Your task to perform on an android device: turn off picture-in-picture Image 0: 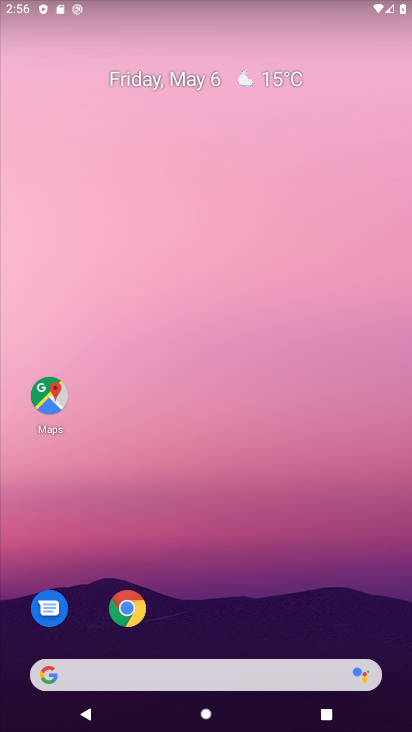
Step 0: drag from (252, 580) to (332, 149)
Your task to perform on an android device: turn off picture-in-picture Image 1: 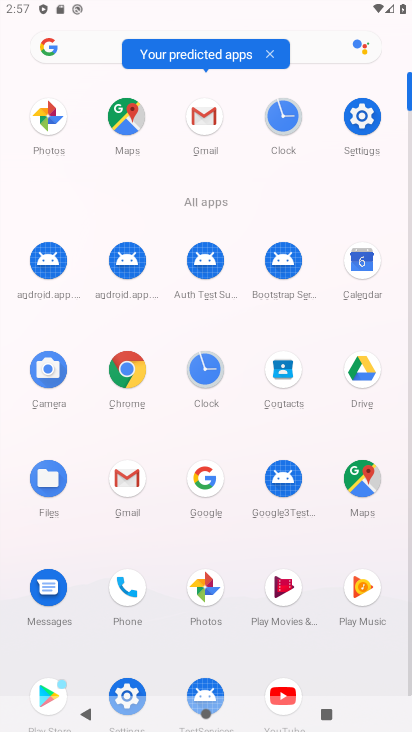
Step 1: click (138, 708)
Your task to perform on an android device: turn off picture-in-picture Image 2: 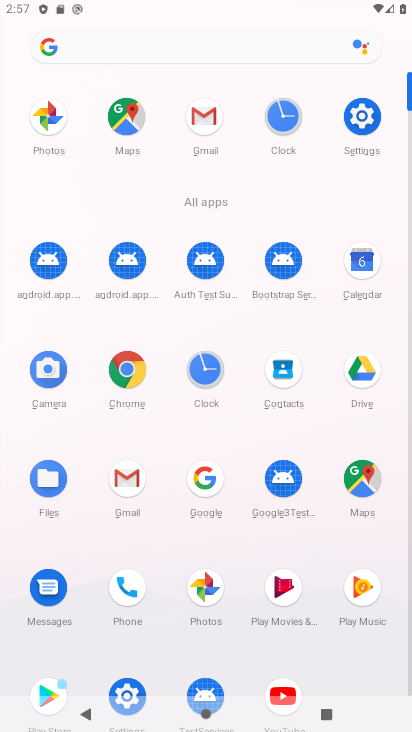
Step 2: click (126, 688)
Your task to perform on an android device: turn off picture-in-picture Image 3: 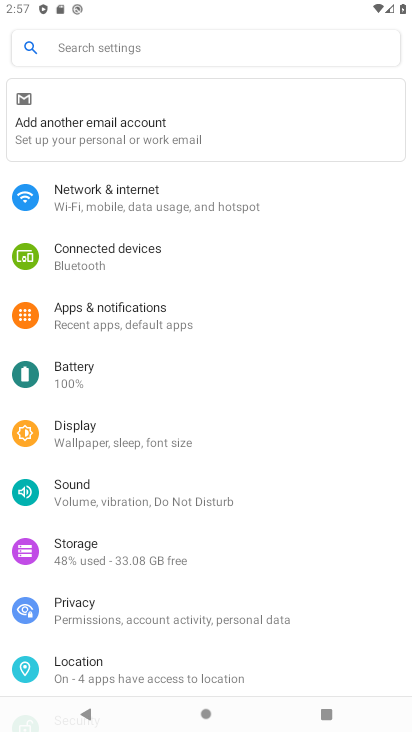
Step 3: click (172, 320)
Your task to perform on an android device: turn off picture-in-picture Image 4: 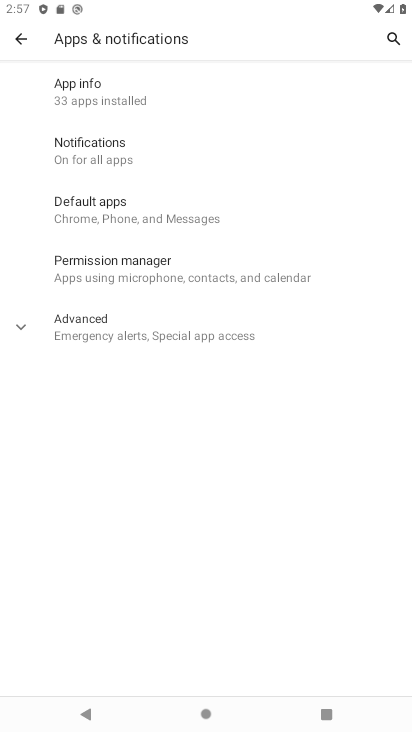
Step 4: click (156, 340)
Your task to perform on an android device: turn off picture-in-picture Image 5: 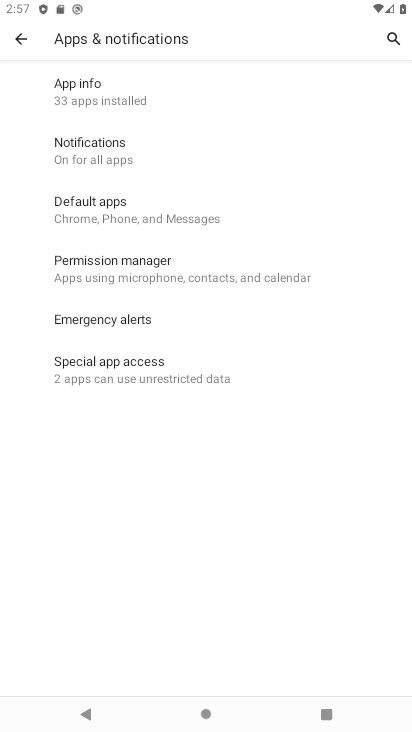
Step 5: click (142, 374)
Your task to perform on an android device: turn off picture-in-picture Image 6: 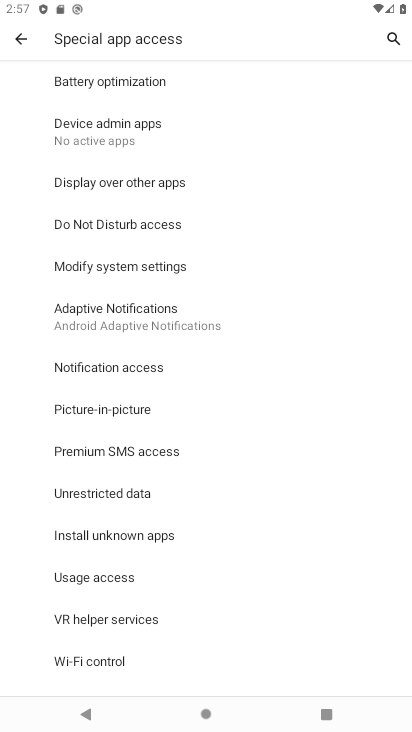
Step 6: click (155, 416)
Your task to perform on an android device: turn off picture-in-picture Image 7: 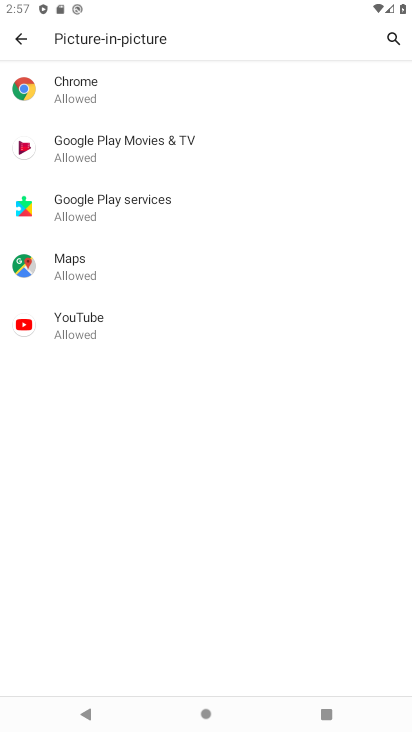
Step 7: click (267, 81)
Your task to perform on an android device: turn off picture-in-picture Image 8: 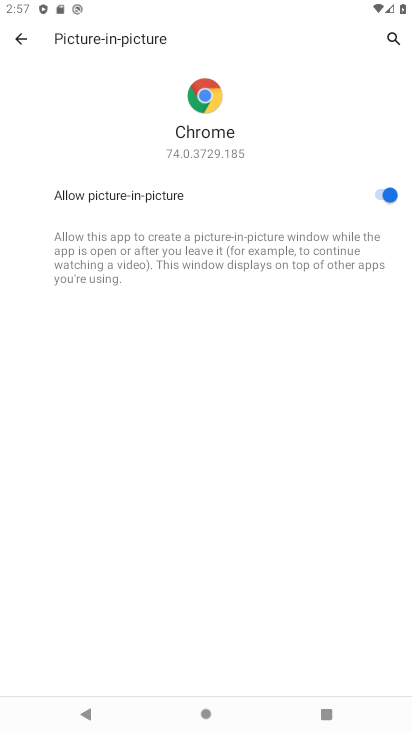
Step 8: click (381, 192)
Your task to perform on an android device: turn off picture-in-picture Image 9: 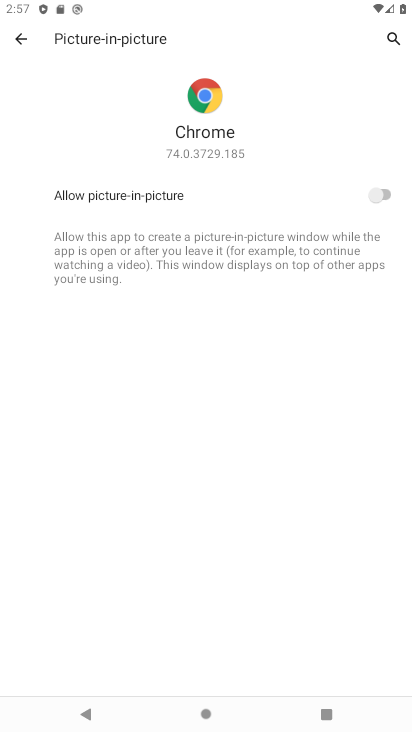
Step 9: press back button
Your task to perform on an android device: turn off picture-in-picture Image 10: 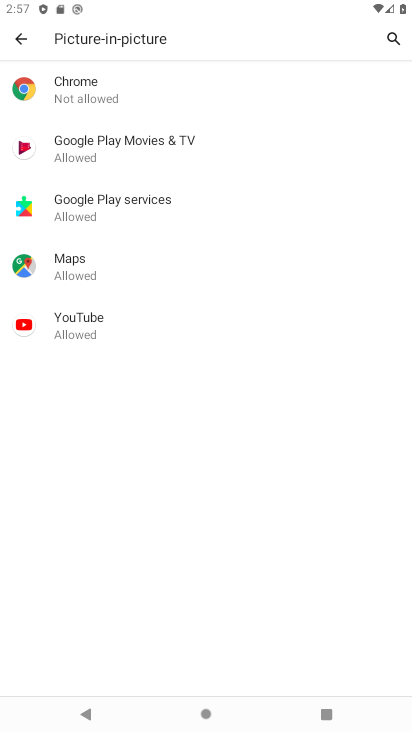
Step 10: click (190, 138)
Your task to perform on an android device: turn off picture-in-picture Image 11: 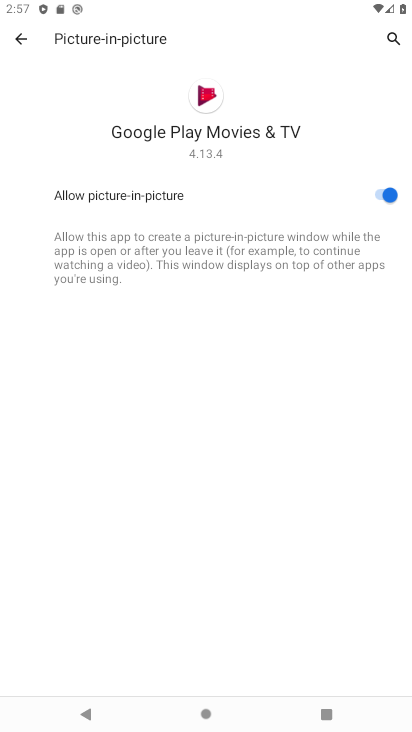
Step 11: click (379, 189)
Your task to perform on an android device: turn off picture-in-picture Image 12: 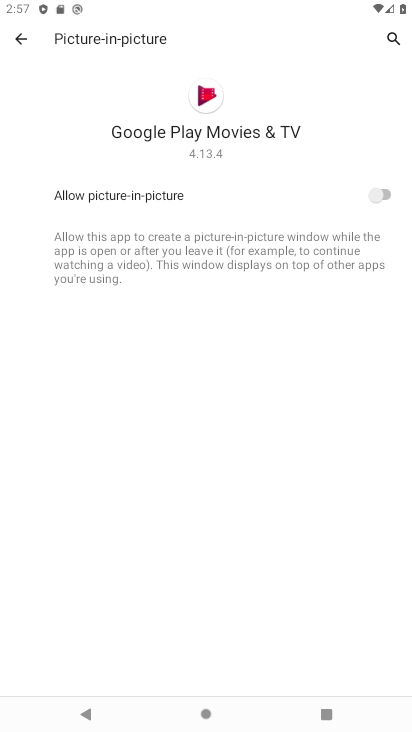
Step 12: press back button
Your task to perform on an android device: turn off picture-in-picture Image 13: 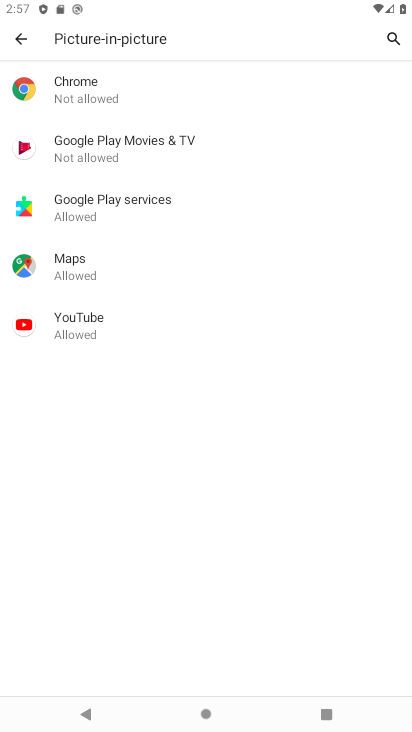
Step 13: click (194, 214)
Your task to perform on an android device: turn off picture-in-picture Image 14: 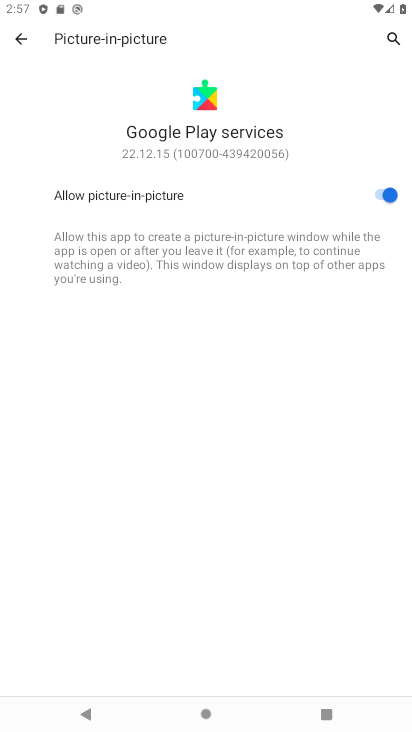
Step 14: click (387, 189)
Your task to perform on an android device: turn off picture-in-picture Image 15: 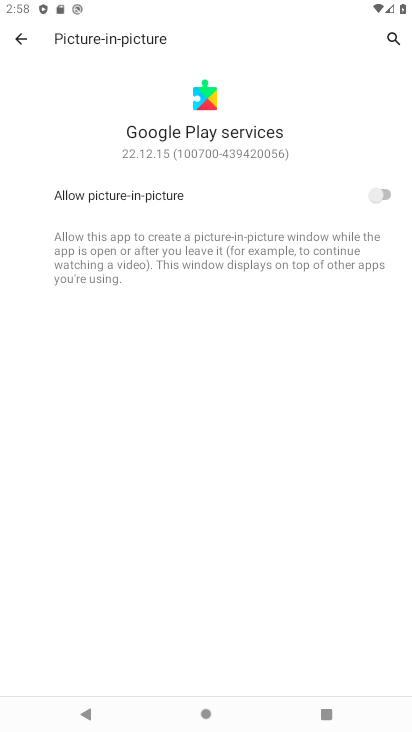
Step 15: press back button
Your task to perform on an android device: turn off picture-in-picture Image 16: 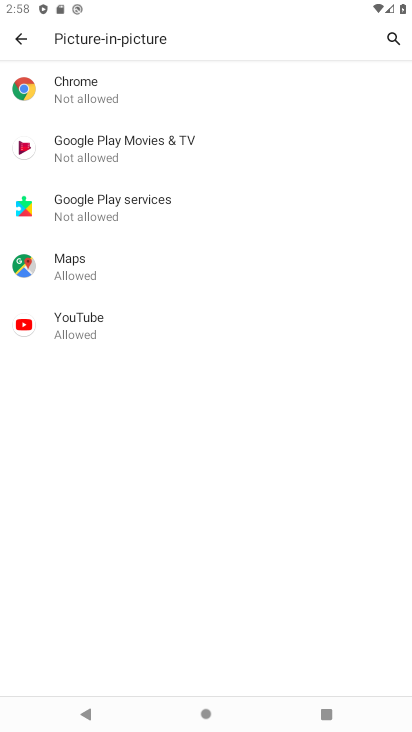
Step 16: click (121, 279)
Your task to perform on an android device: turn off picture-in-picture Image 17: 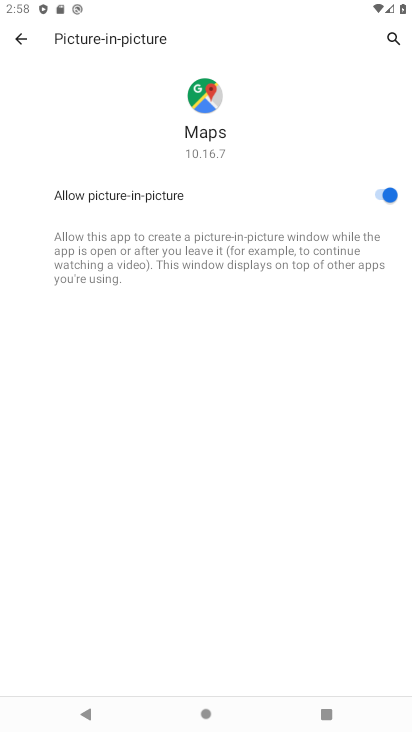
Step 17: click (377, 193)
Your task to perform on an android device: turn off picture-in-picture Image 18: 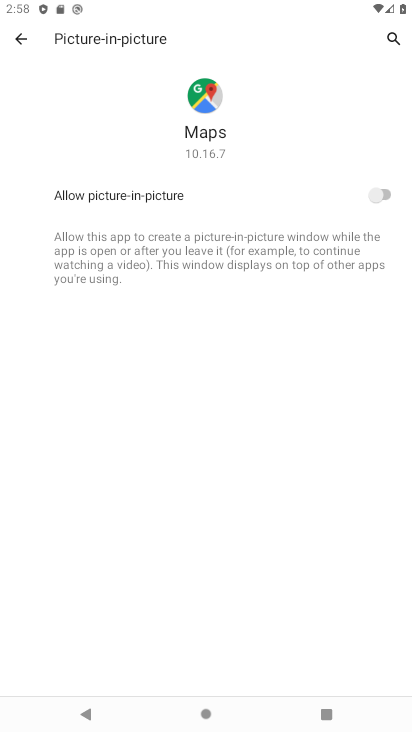
Step 18: press back button
Your task to perform on an android device: turn off picture-in-picture Image 19: 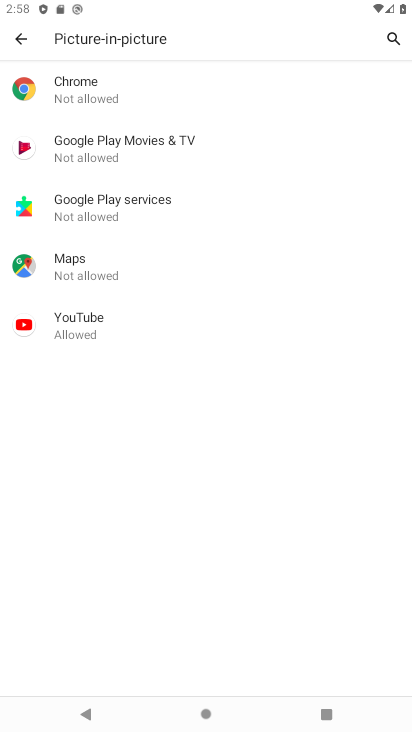
Step 19: click (137, 334)
Your task to perform on an android device: turn off picture-in-picture Image 20: 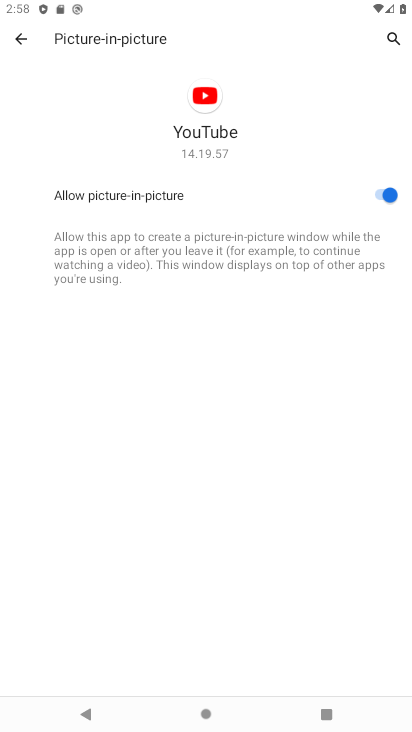
Step 20: click (378, 179)
Your task to perform on an android device: turn off picture-in-picture Image 21: 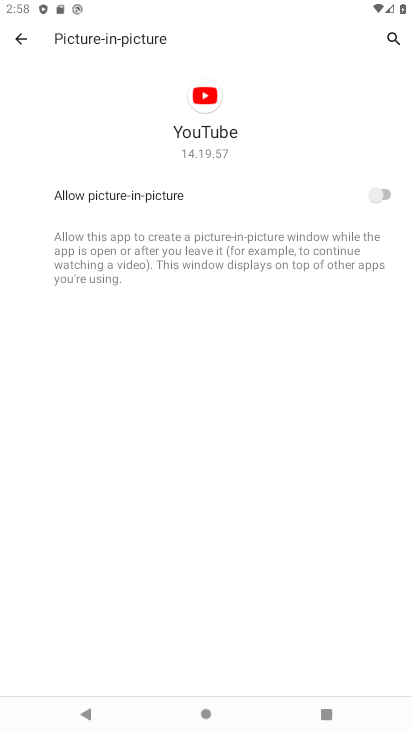
Step 21: task complete